Your task to perform on an android device: snooze an email in the gmail app Image 0: 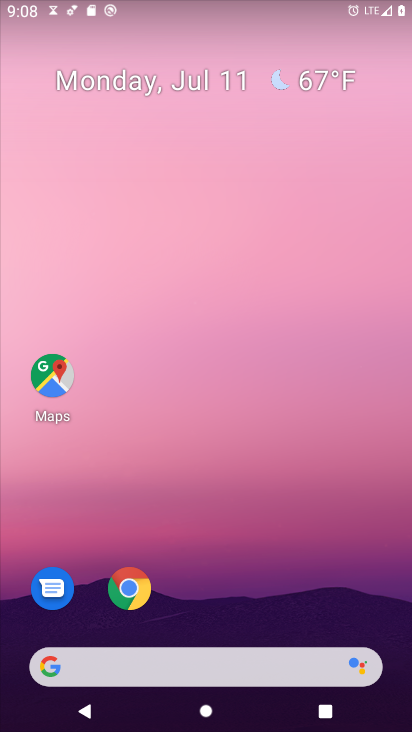
Step 0: drag from (272, 532) to (342, 69)
Your task to perform on an android device: snooze an email in the gmail app Image 1: 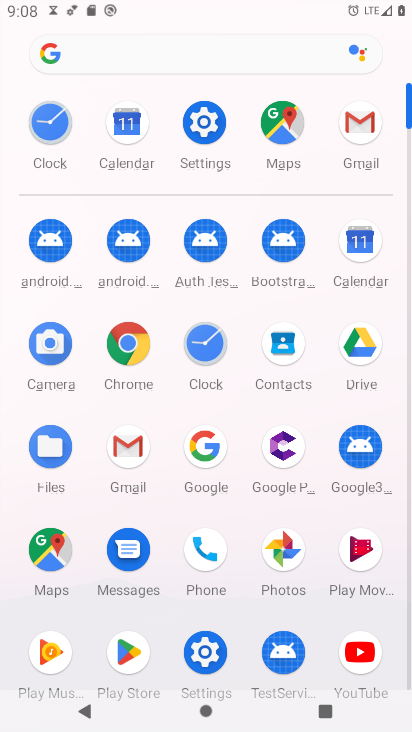
Step 1: click (356, 144)
Your task to perform on an android device: snooze an email in the gmail app Image 2: 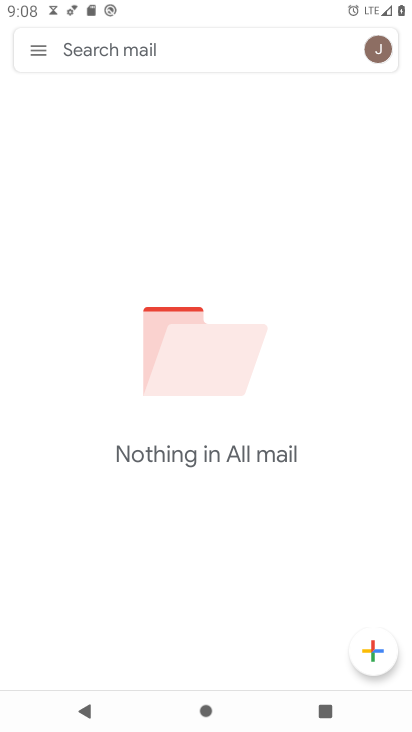
Step 2: task complete